Your task to perform on an android device: What's the news in India? Image 0: 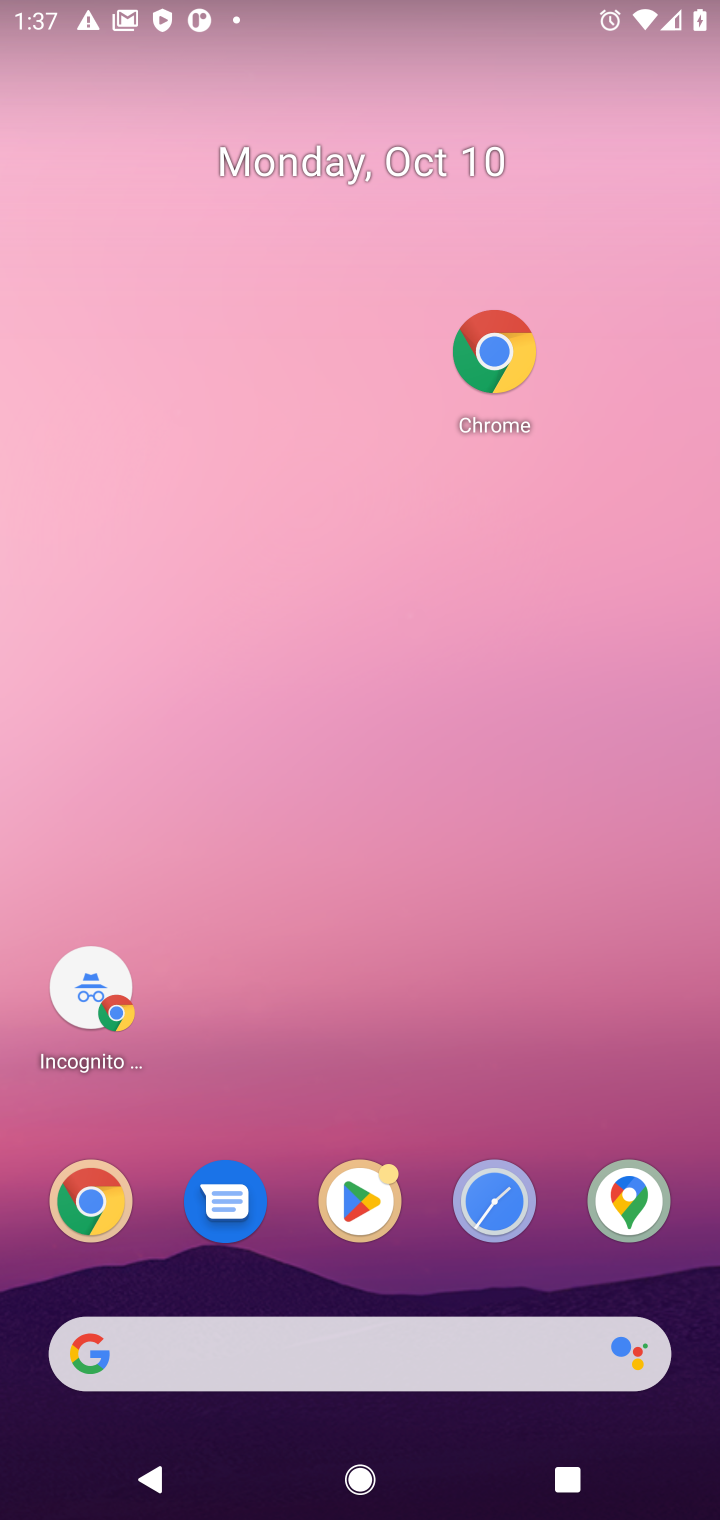
Step 0: click (491, 360)
Your task to perform on an android device: What's the news in India? Image 1: 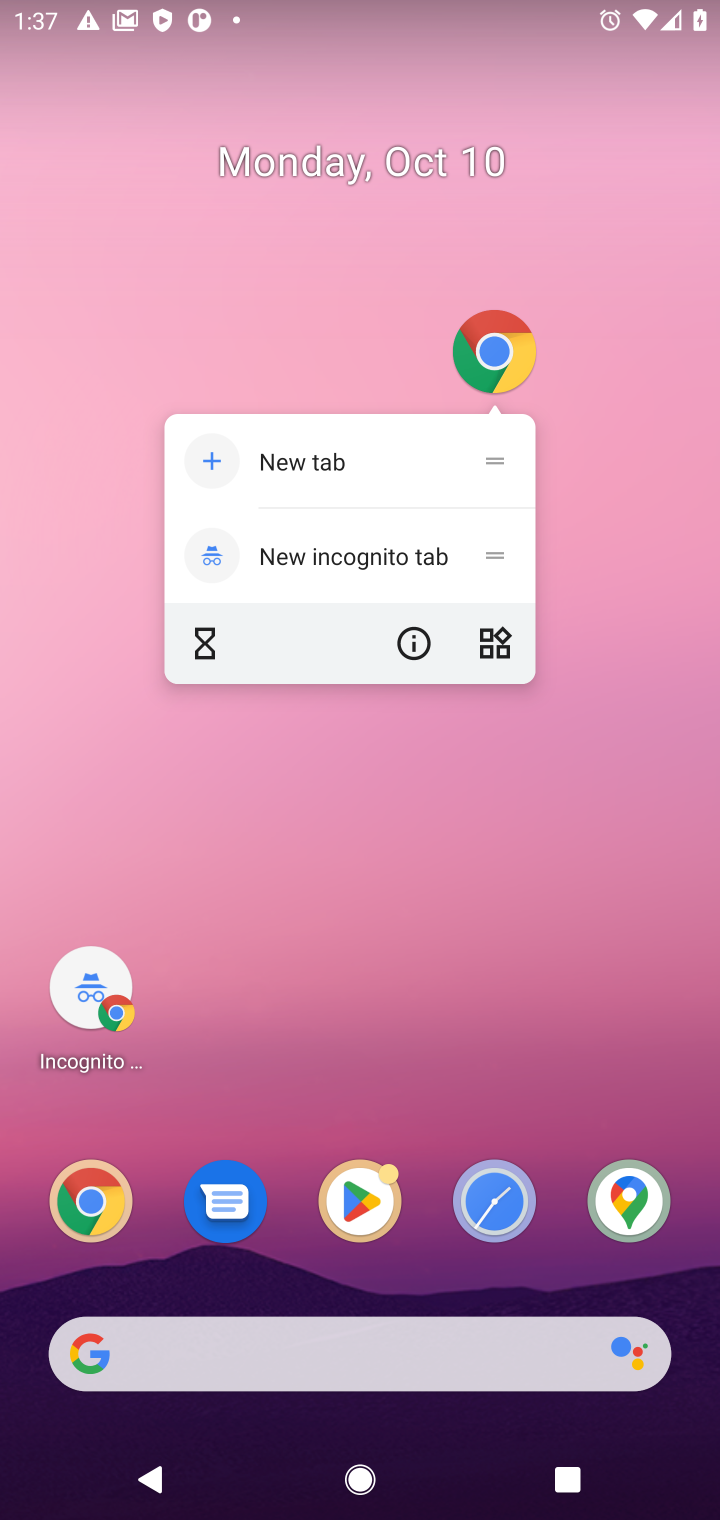
Step 1: click (491, 360)
Your task to perform on an android device: What's the news in India? Image 2: 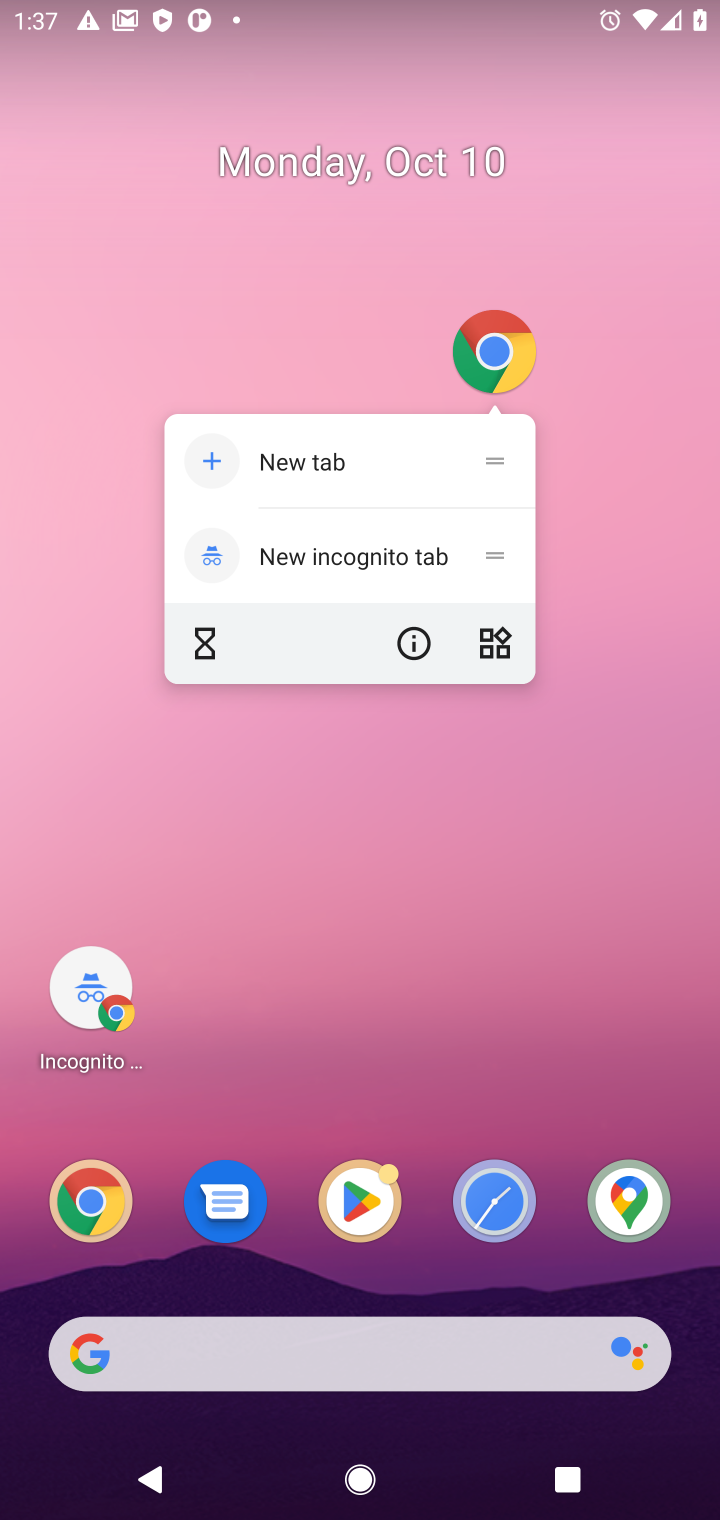
Step 2: click (491, 360)
Your task to perform on an android device: What's the news in India? Image 3: 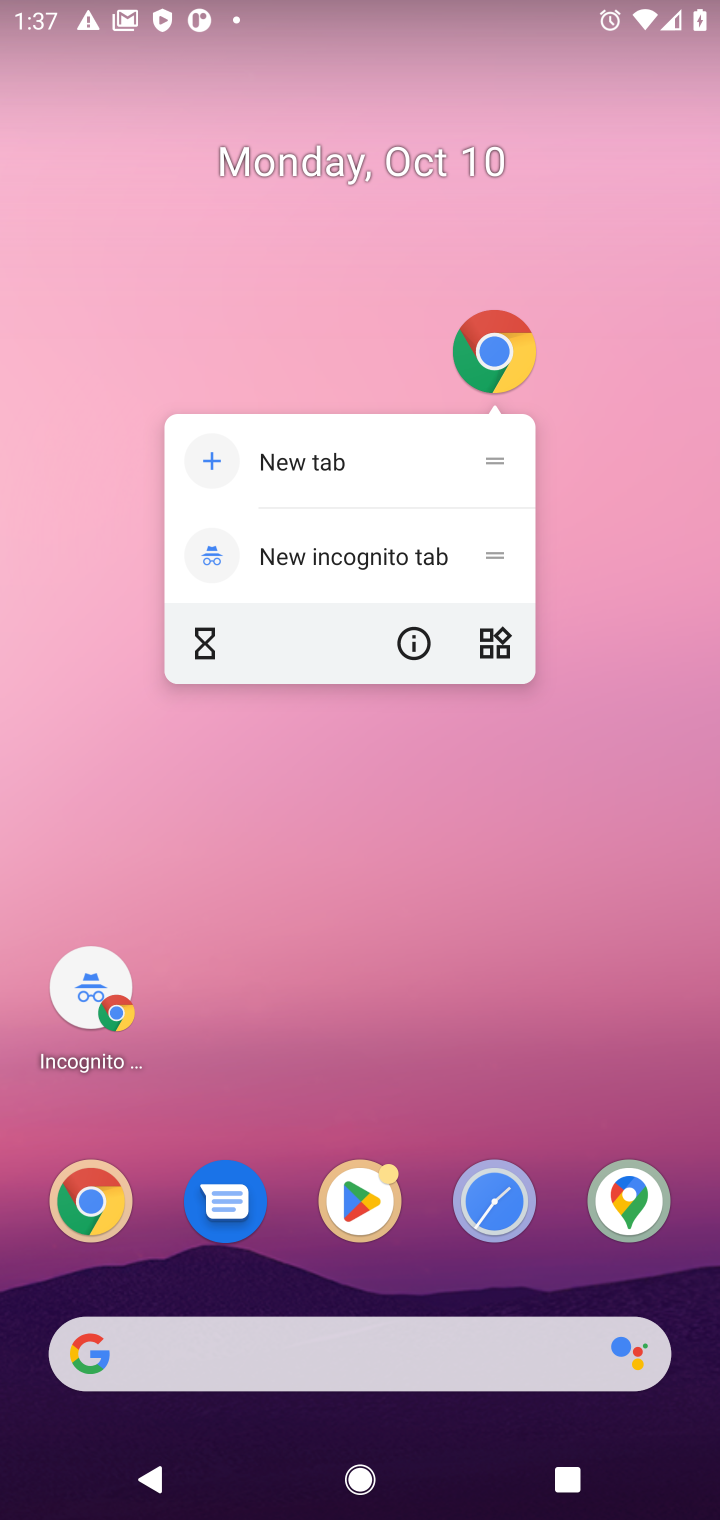
Step 3: click (491, 360)
Your task to perform on an android device: What's the news in India? Image 4: 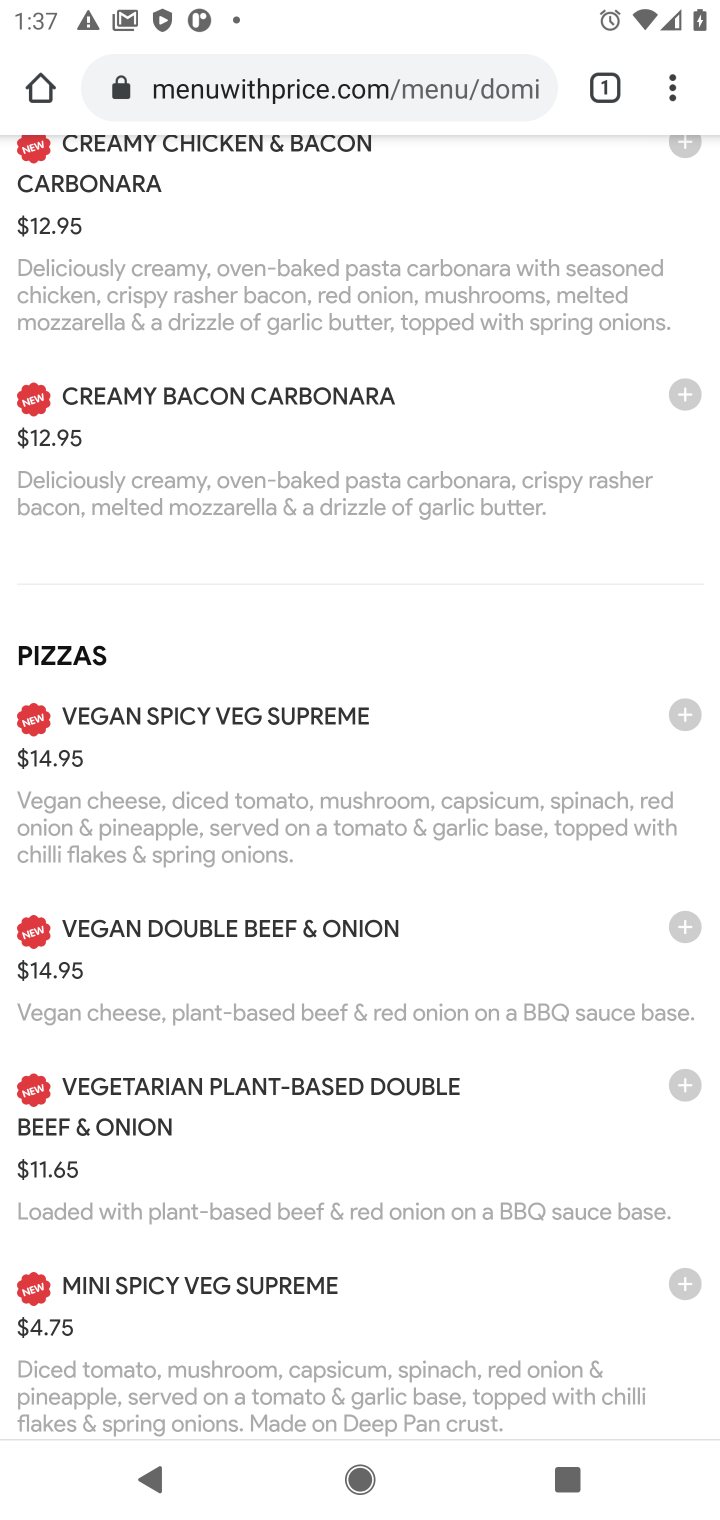
Step 4: click (350, 78)
Your task to perform on an android device: What's the news in India? Image 5: 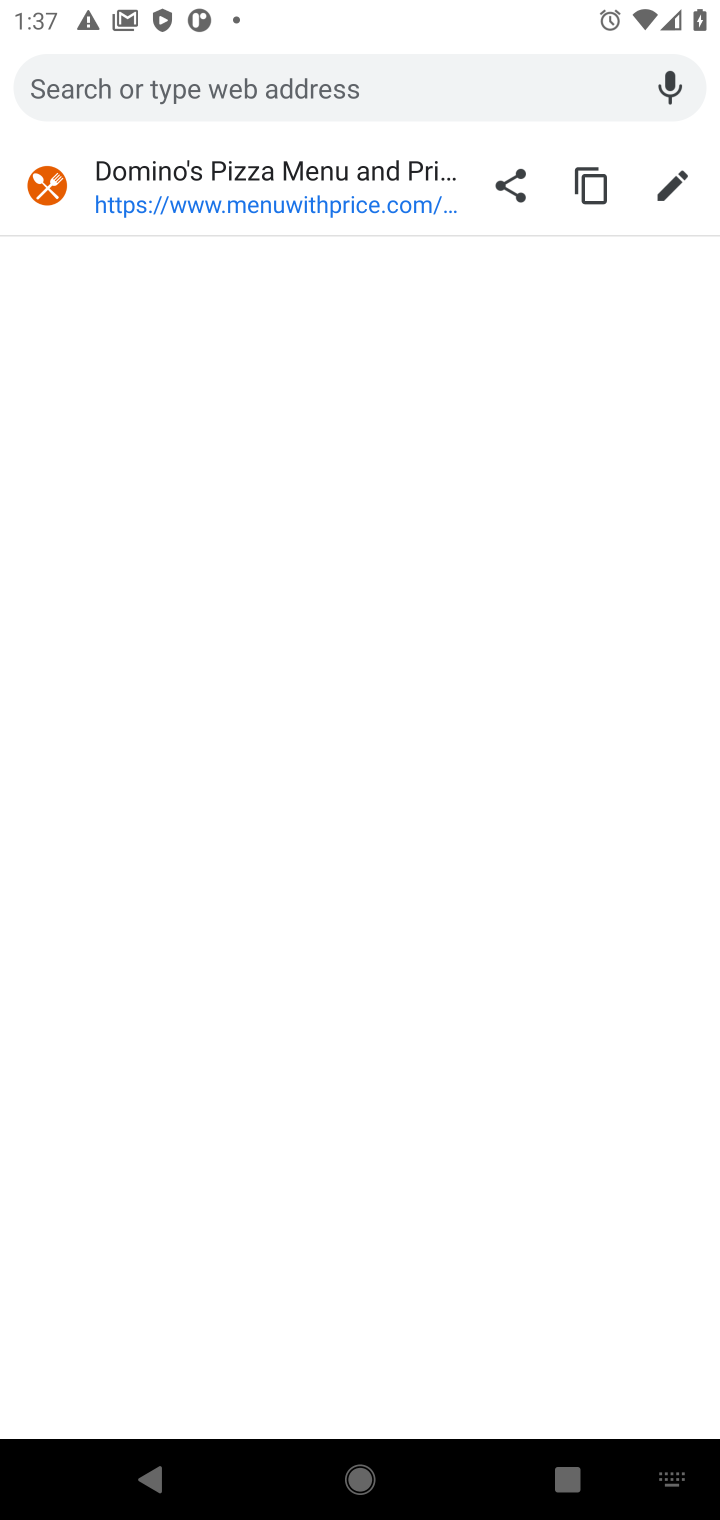
Step 5: type "india"
Your task to perform on an android device: What's the news in India? Image 6: 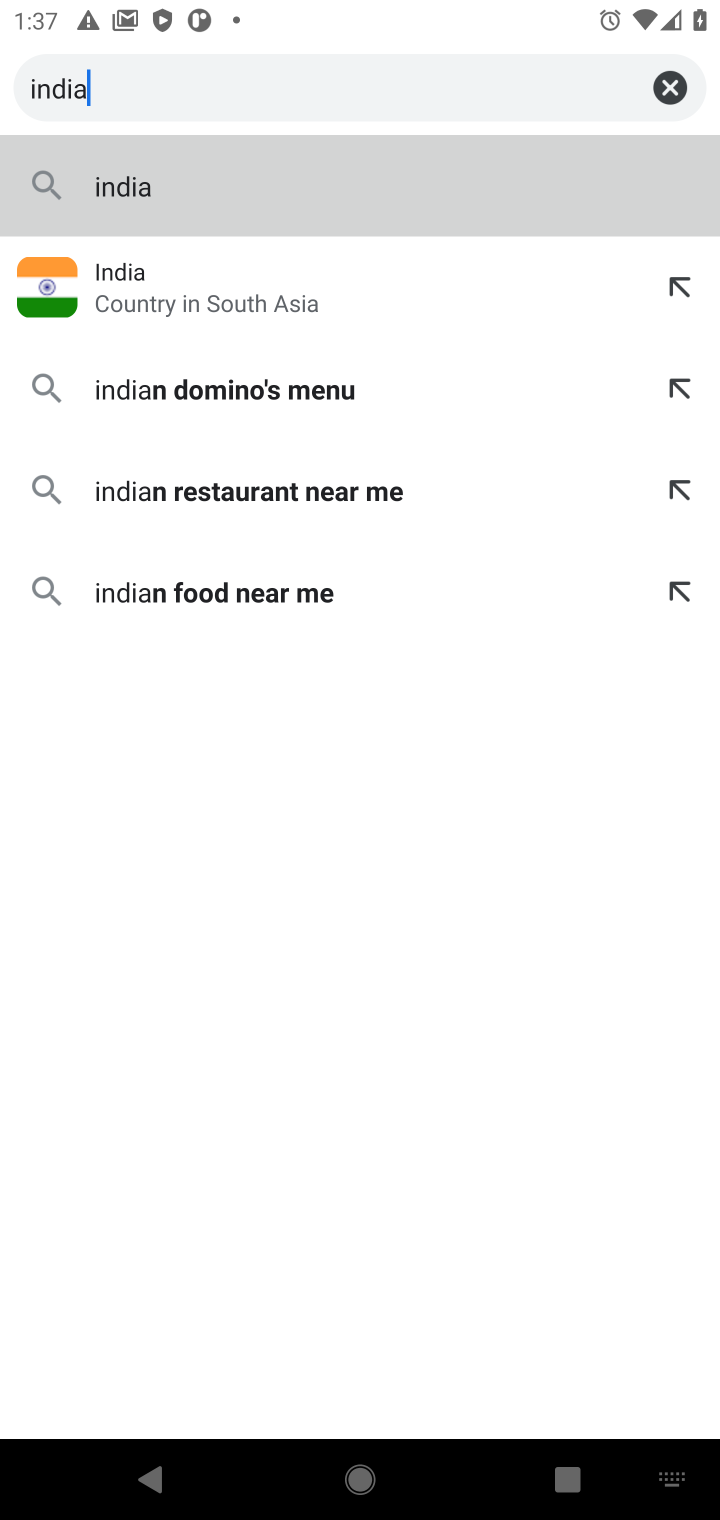
Step 6: click (96, 200)
Your task to perform on an android device: What's the news in India? Image 7: 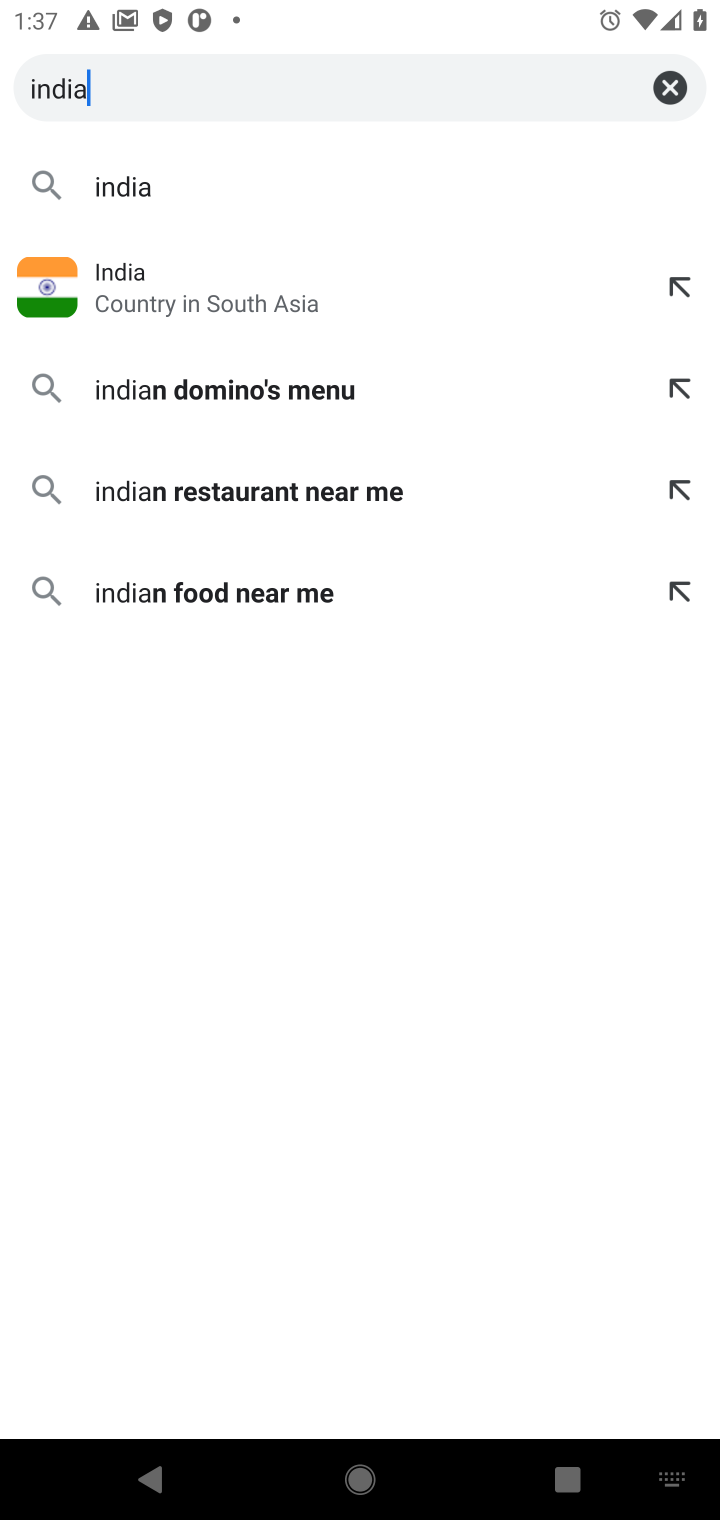
Step 7: click (112, 195)
Your task to perform on an android device: What's the news in India? Image 8: 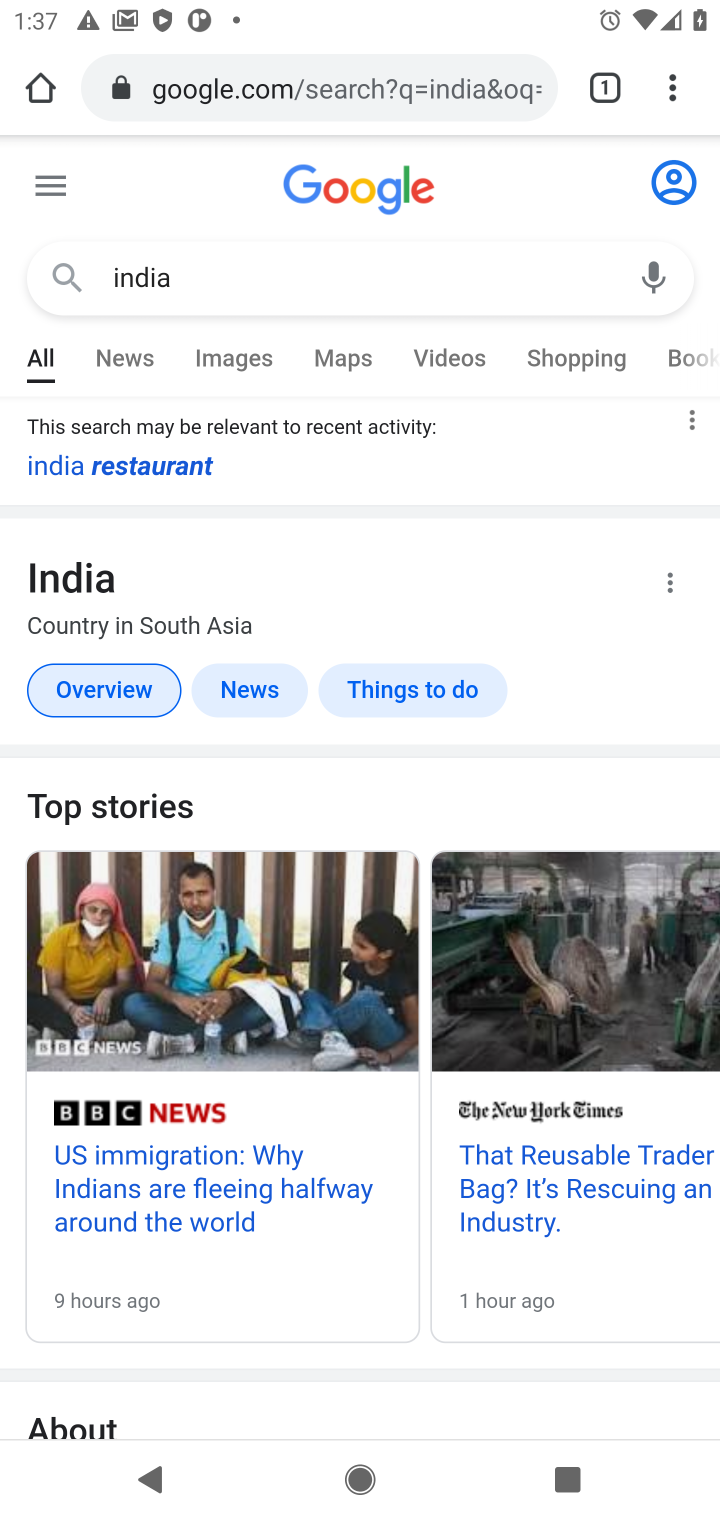
Step 8: click (141, 363)
Your task to perform on an android device: What's the news in India? Image 9: 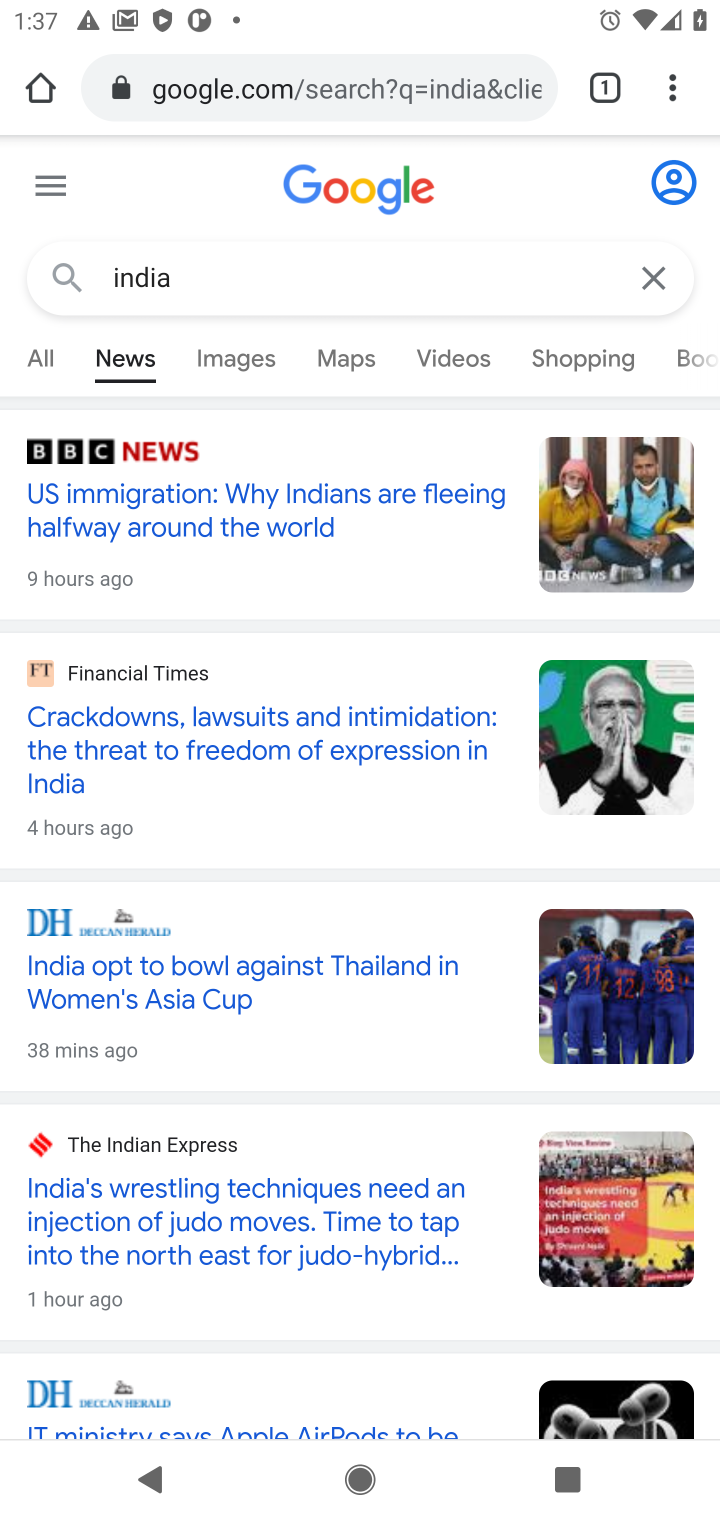
Step 9: click (155, 529)
Your task to perform on an android device: What's the news in India? Image 10: 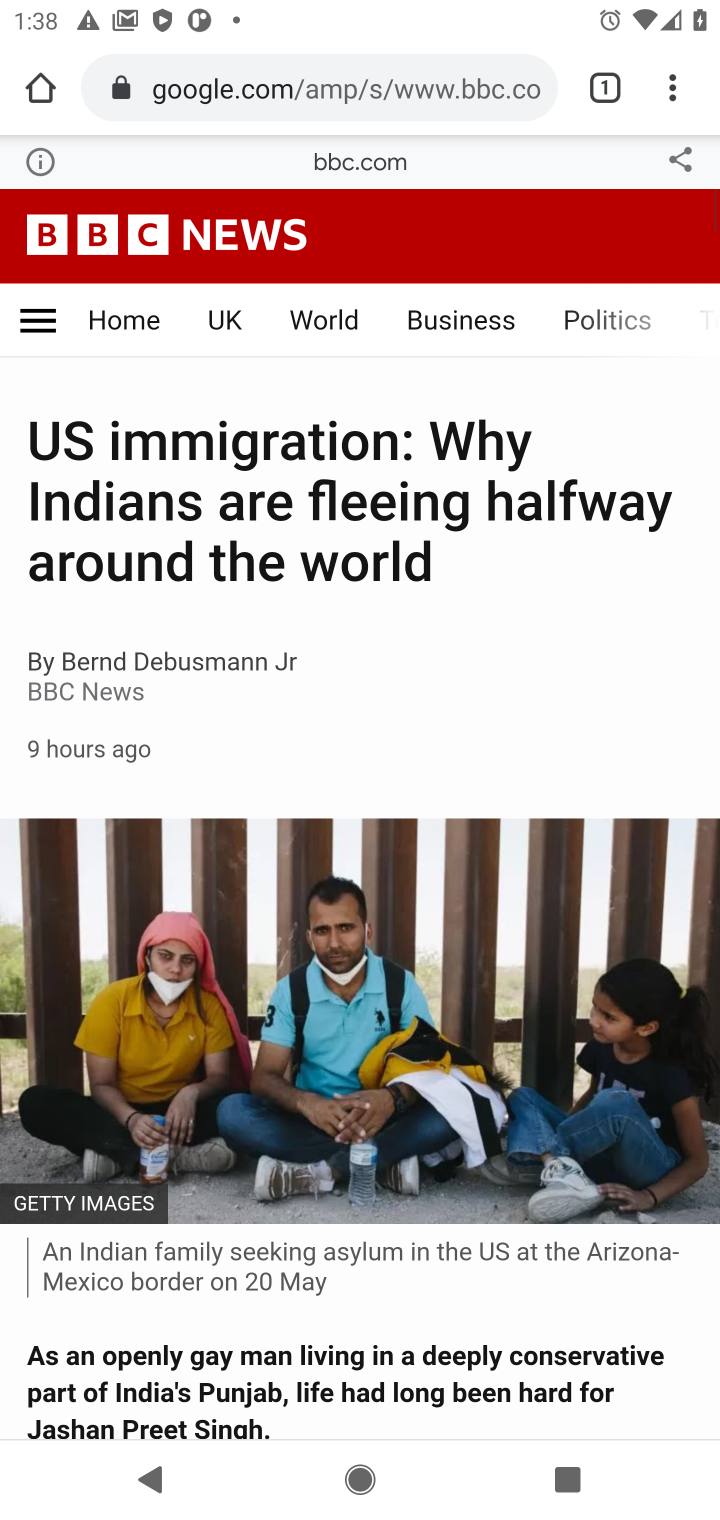
Step 10: task complete